Your task to perform on an android device: Open wifi settings Image 0: 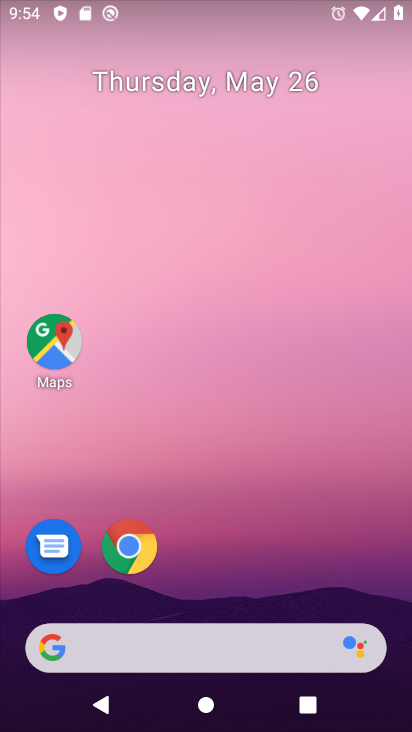
Step 0: drag from (290, 562) to (202, 95)
Your task to perform on an android device: Open wifi settings Image 1: 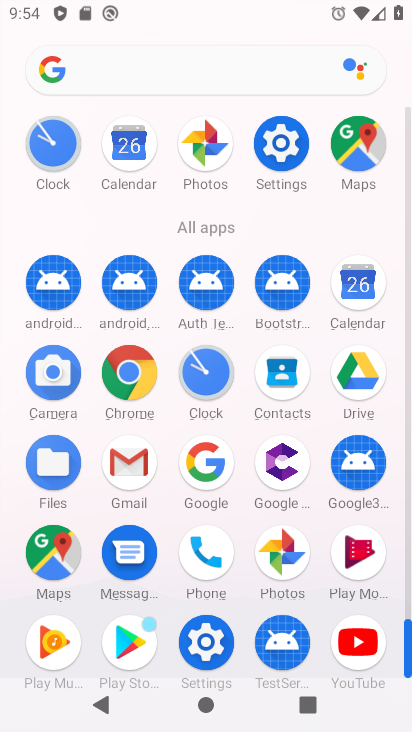
Step 1: click (283, 144)
Your task to perform on an android device: Open wifi settings Image 2: 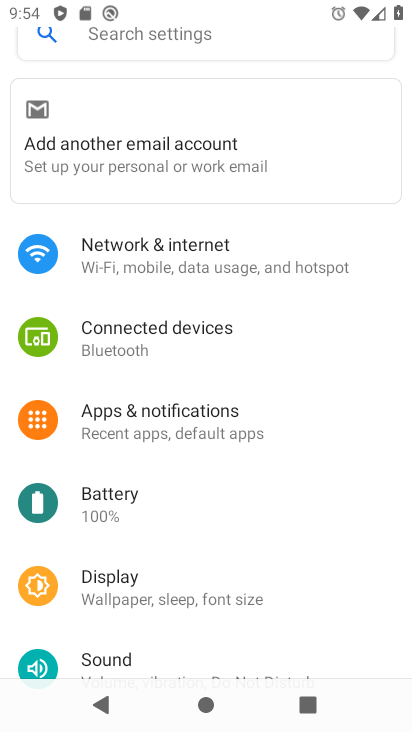
Step 2: click (183, 252)
Your task to perform on an android device: Open wifi settings Image 3: 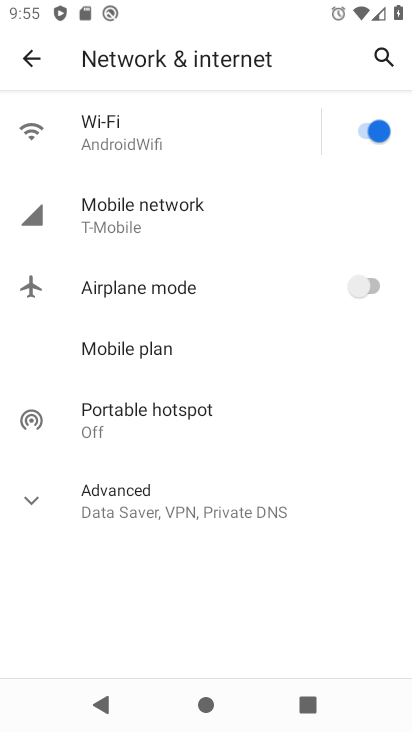
Step 3: click (125, 141)
Your task to perform on an android device: Open wifi settings Image 4: 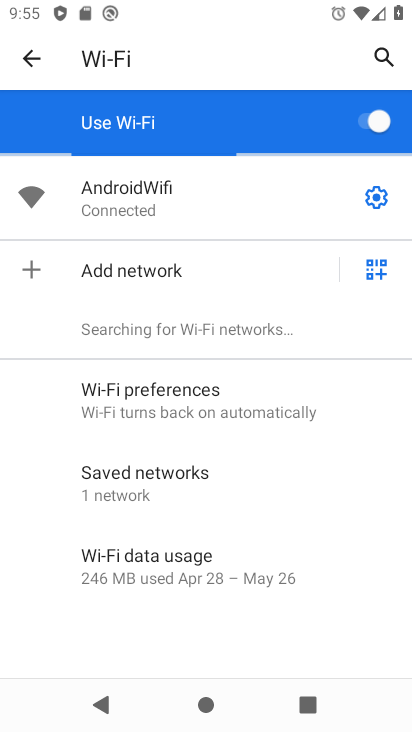
Step 4: click (374, 196)
Your task to perform on an android device: Open wifi settings Image 5: 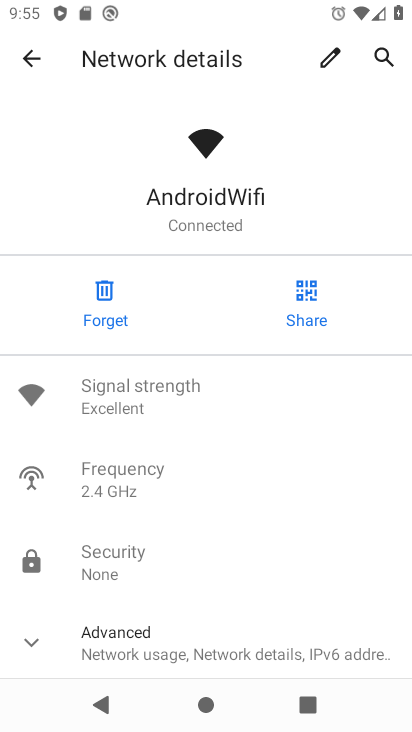
Step 5: task complete